Your task to perform on an android device: Do I have any events tomorrow? Image 0: 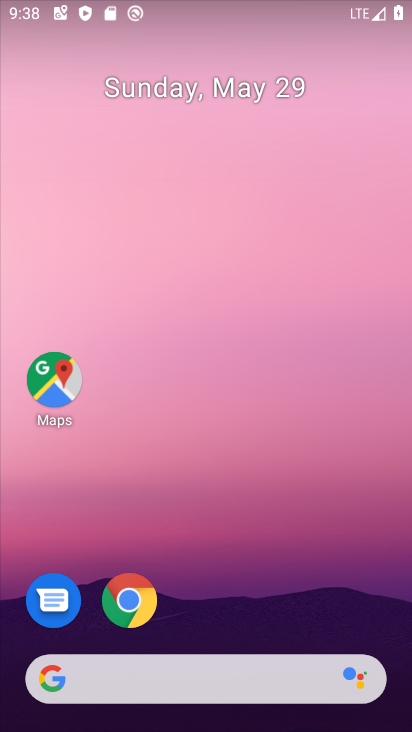
Step 0: drag from (210, 490) to (202, 59)
Your task to perform on an android device: Do I have any events tomorrow? Image 1: 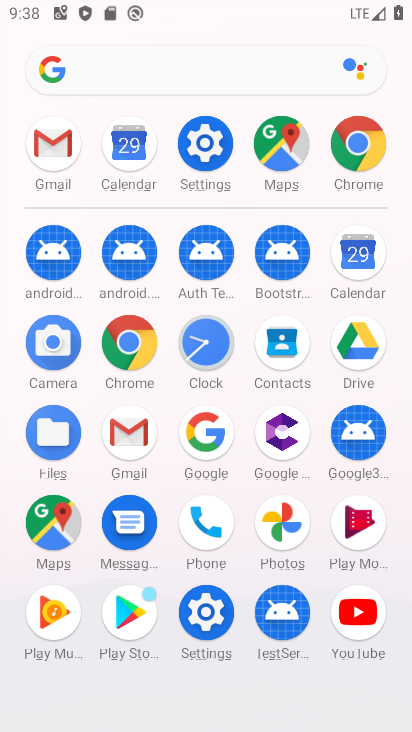
Step 1: click (122, 136)
Your task to perform on an android device: Do I have any events tomorrow? Image 2: 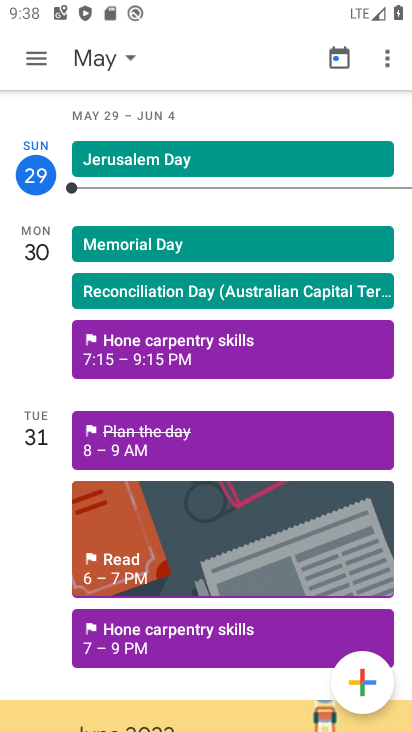
Step 2: click (124, 57)
Your task to perform on an android device: Do I have any events tomorrow? Image 3: 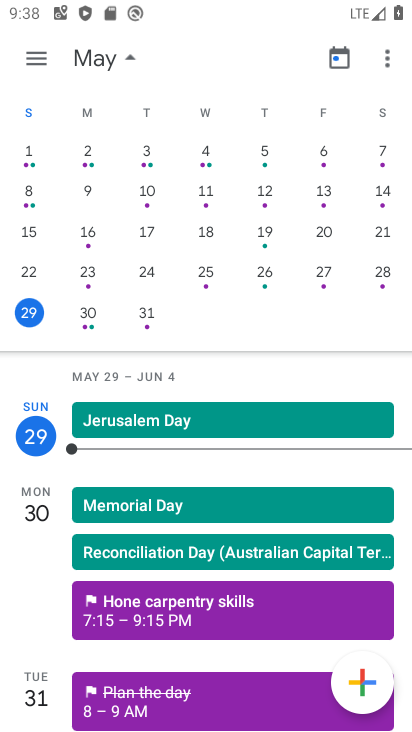
Step 3: click (142, 318)
Your task to perform on an android device: Do I have any events tomorrow? Image 4: 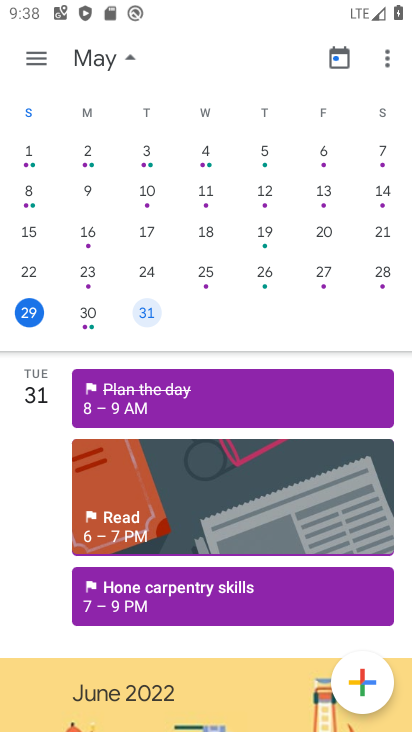
Step 4: task complete